Your task to perform on an android device: Open Chrome and go to the settings page Image 0: 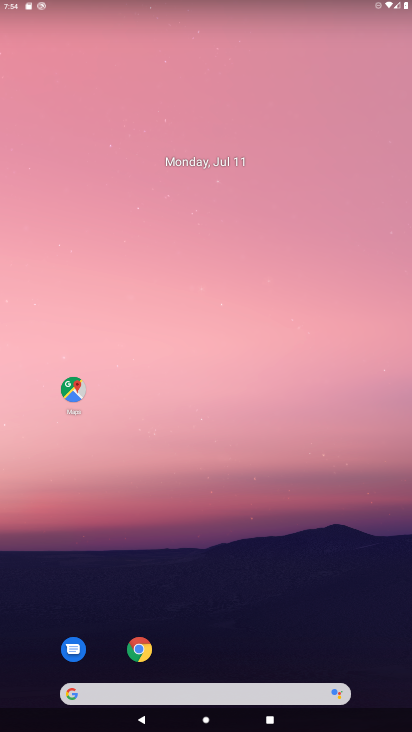
Step 0: click (139, 650)
Your task to perform on an android device: Open Chrome and go to the settings page Image 1: 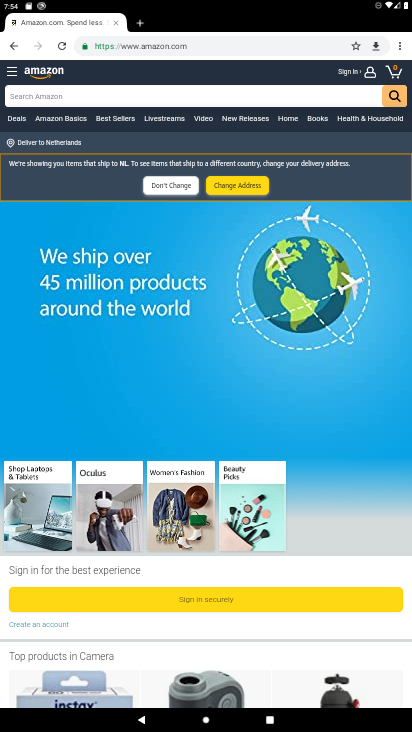
Step 1: click (401, 46)
Your task to perform on an android device: Open Chrome and go to the settings page Image 2: 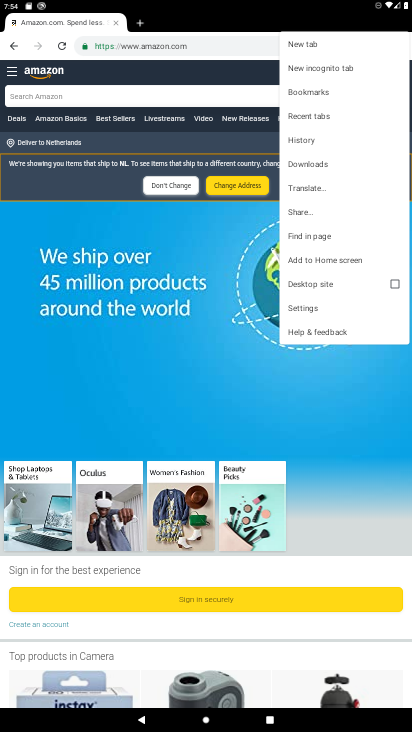
Step 2: click (307, 307)
Your task to perform on an android device: Open Chrome and go to the settings page Image 3: 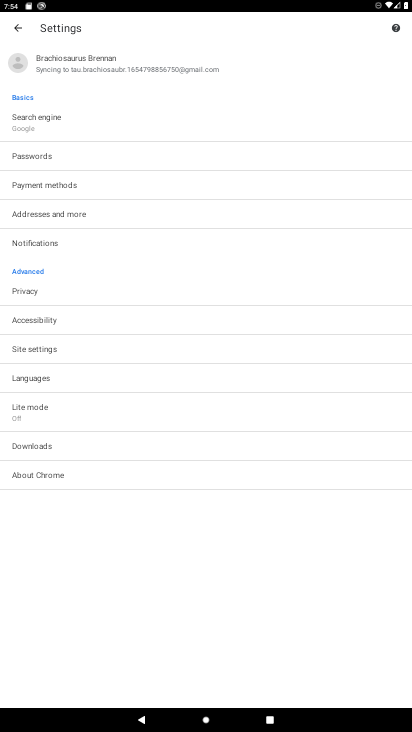
Step 3: task complete